Your task to perform on an android device: Open calendar and show me the third week of next month Image 0: 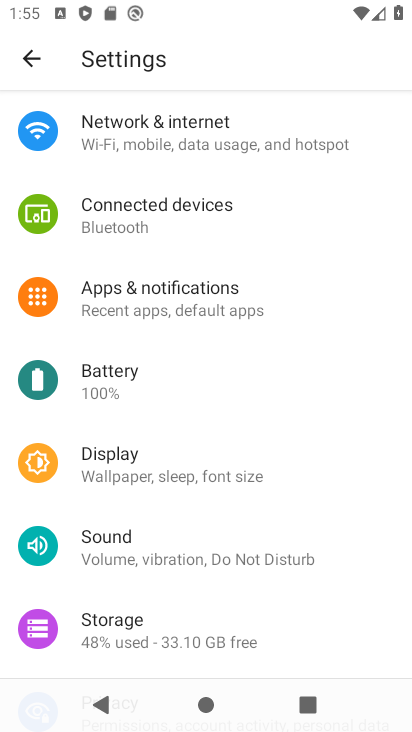
Step 0: press home button
Your task to perform on an android device: Open calendar and show me the third week of next month Image 1: 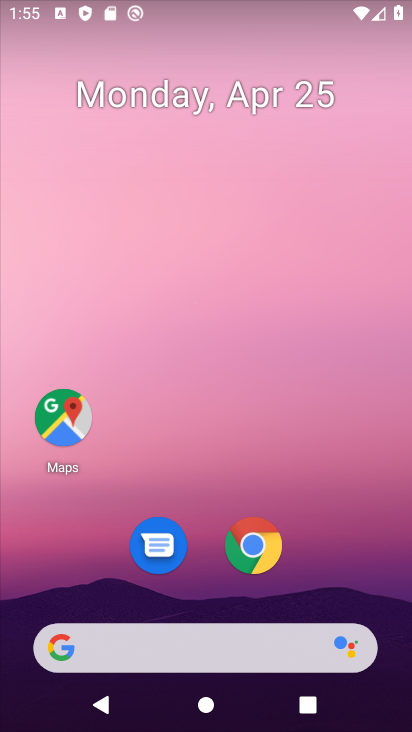
Step 1: drag from (198, 620) to (5, 173)
Your task to perform on an android device: Open calendar and show me the third week of next month Image 2: 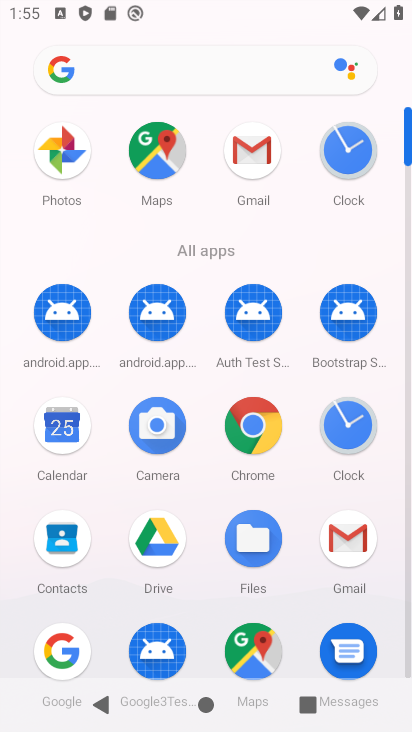
Step 2: click (77, 445)
Your task to perform on an android device: Open calendar and show me the third week of next month Image 3: 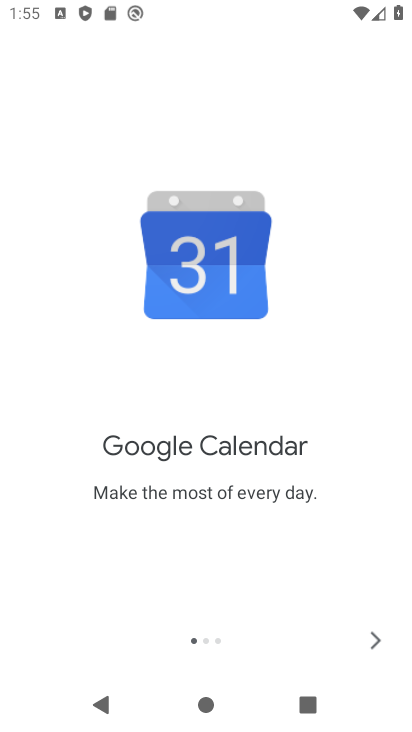
Step 3: click (362, 634)
Your task to perform on an android device: Open calendar and show me the third week of next month Image 4: 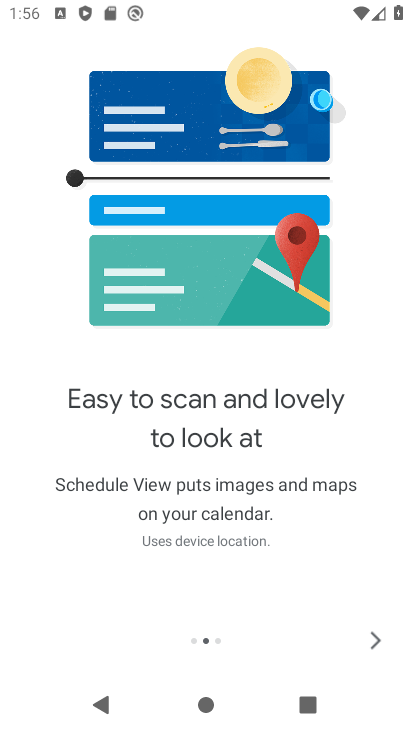
Step 4: click (380, 647)
Your task to perform on an android device: Open calendar and show me the third week of next month Image 5: 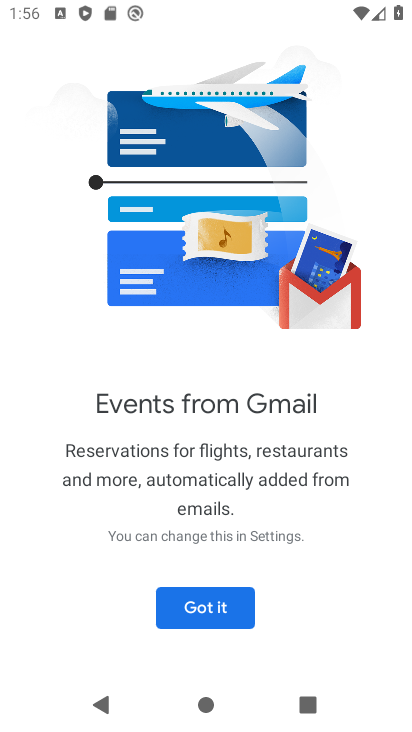
Step 5: click (216, 595)
Your task to perform on an android device: Open calendar and show me the third week of next month Image 6: 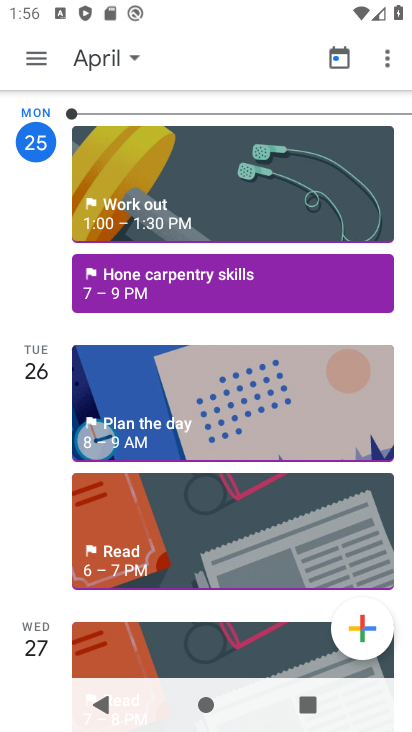
Step 6: click (28, 62)
Your task to perform on an android device: Open calendar and show me the third week of next month Image 7: 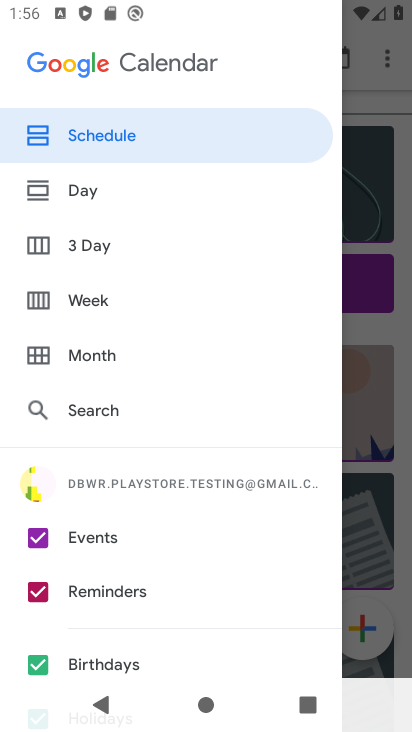
Step 7: click (104, 355)
Your task to perform on an android device: Open calendar and show me the third week of next month Image 8: 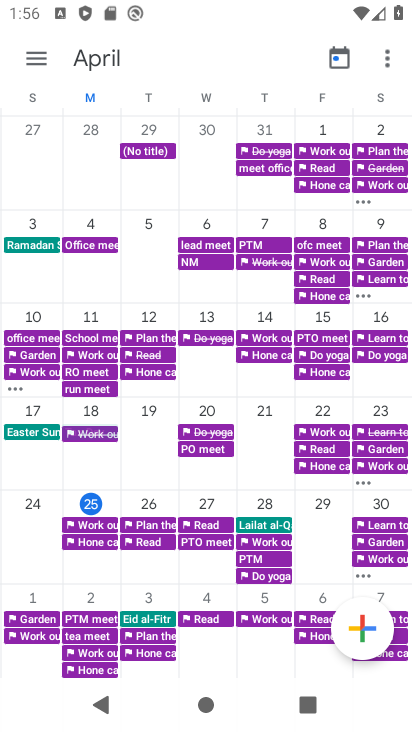
Step 8: task complete